Your task to perform on an android device: empty trash in the gmail app Image 0: 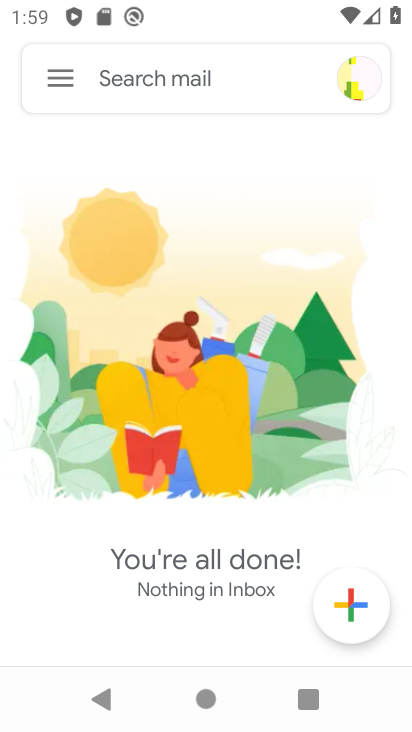
Step 0: click (64, 87)
Your task to perform on an android device: empty trash in the gmail app Image 1: 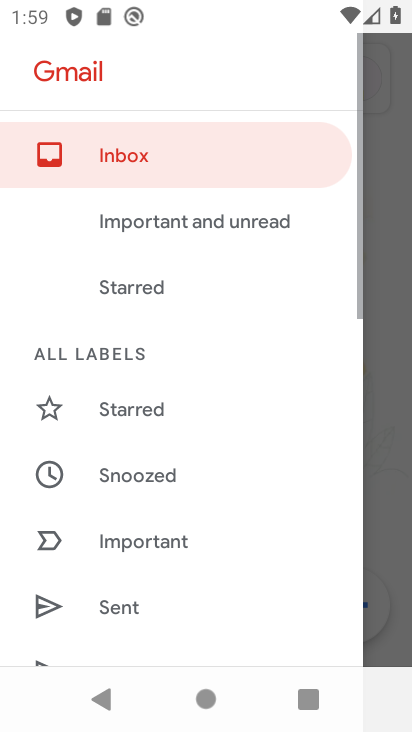
Step 1: drag from (257, 543) to (205, 93)
Your task to perform on an android device: empty trash in the gmail app Image 2: 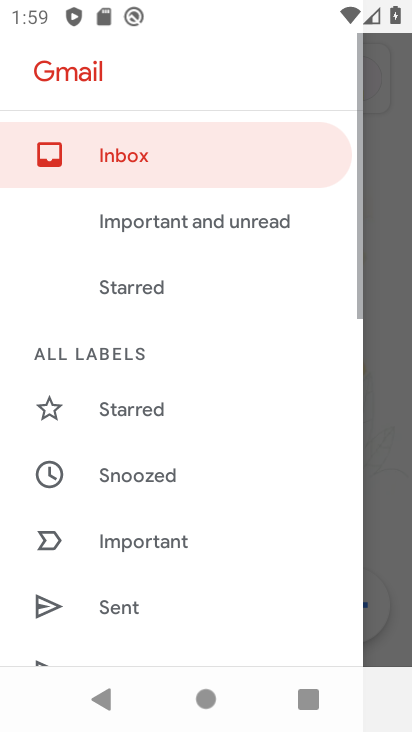
Step 2: drag from (167, 62) to (177, 19)
Your task to perform on an android device: empty trash in the gmail app Image 3: 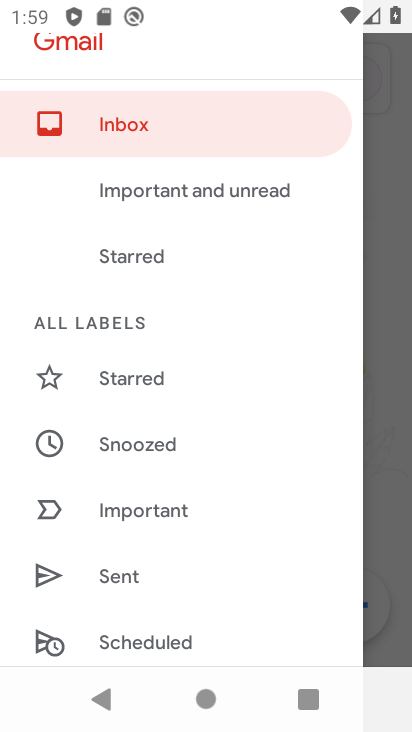
Step 3: drag from (164, 623) to (257, 16)
Your task to perform on an android device: empty trash in the gmail app Image 4: 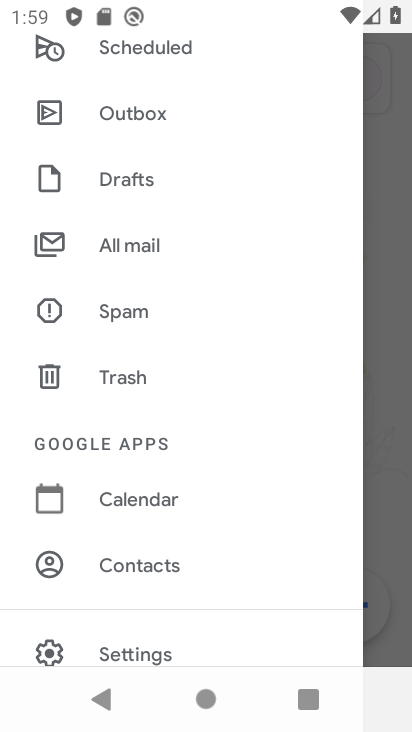
Step 4: click (151, 375)
Your task to perform on an android device: empty trash in the gmail app Image 5: 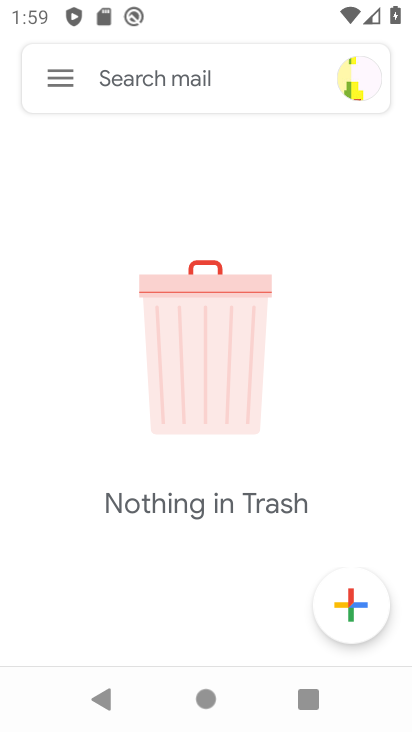
Step 5: task complete